Your task to perform on an android device: Open the phone app and click the voicemail tab. Image 0: 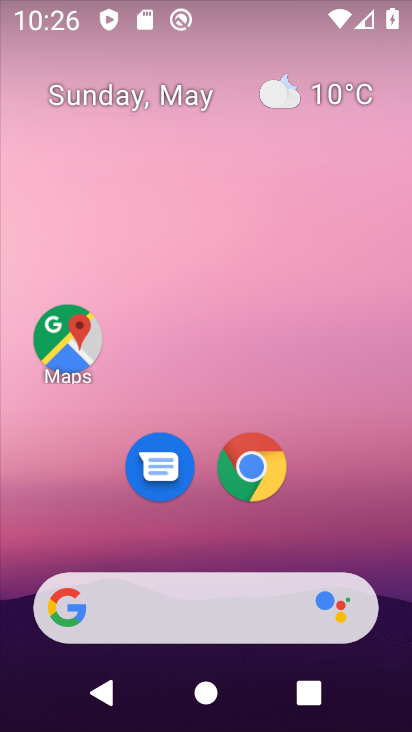
Step 0: drag from (230, 541) to (177, 80)
Your task to perform on an android device: Open the phone app and click the voicemail tab. Image 1: 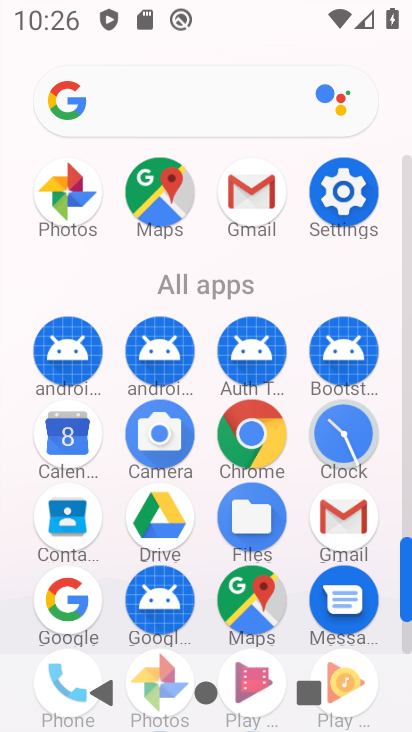
Step 1: drag from (274, 537) to (233, 92)
Your task to perform on an android device: Open the phone app and click the voicemail tab. Image 2: 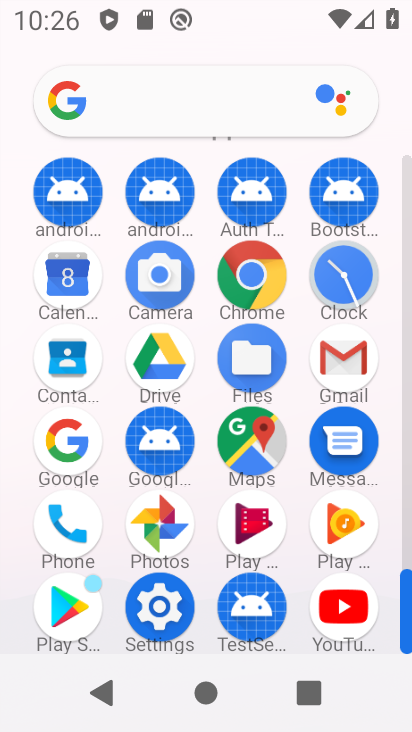
Step 2: click (71, 522)
Your task to perform on an android device: Open the phone app and click the voicemail tab. Image 3: 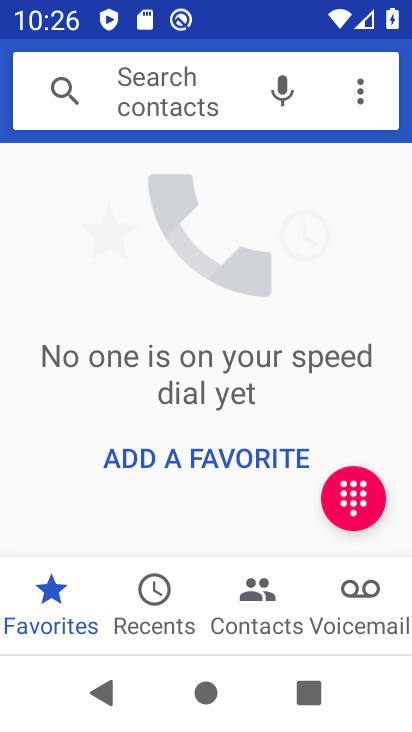
Step 3: click (377, 600)
Your task to perform on an android device: Open the phone app and click the voicemail tab. Image 4: 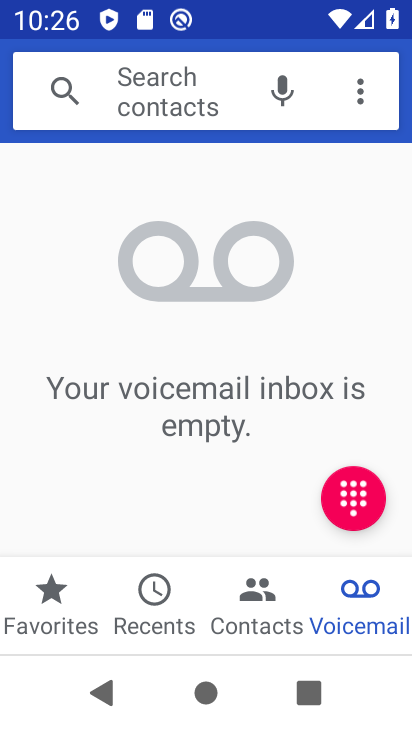
Step 4: task complete